Your task to perform on an android device: add a label to a message in the gmail app Image 0: 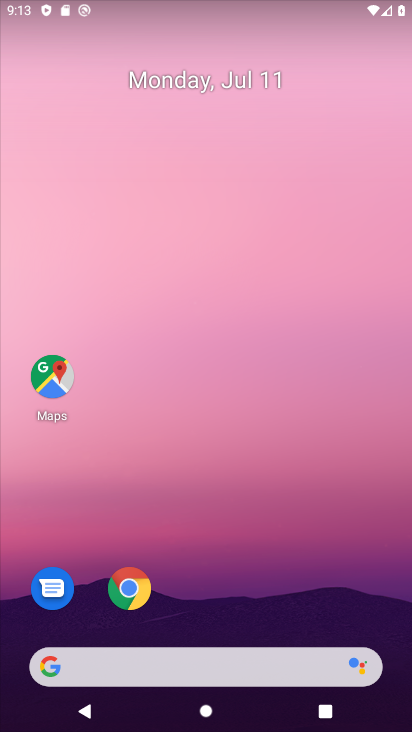
Step 0: drag from (318, 597) to (316, 428)
Your task to perform on an android device: add a label to a message in the gmail app Image 1: 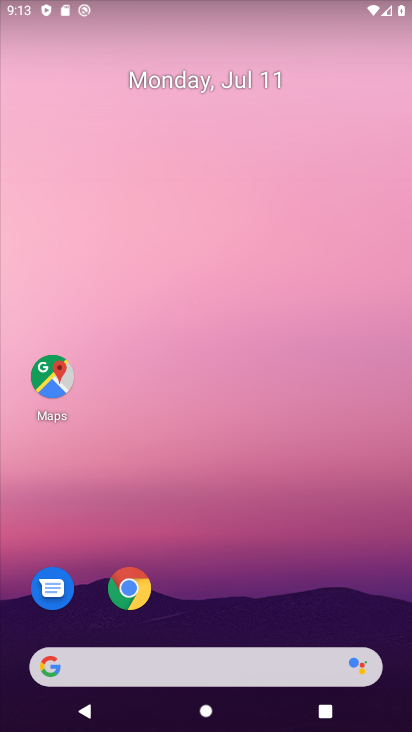
Step 1: click (325, 183)
Your task to perform on an android device: add a label to a message in the gmail app Image 2: 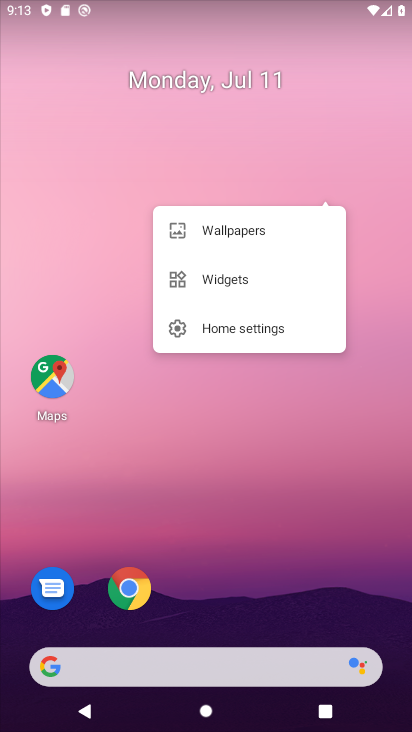
Step 2: click (301, 543)
Your task to perform on an android device: add a label to a message in the gmail app Image 3: 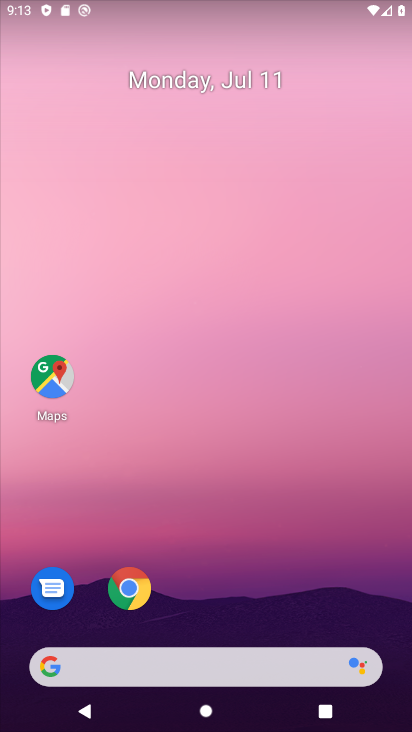
Step 3: click (301, 543)
Your task to perform on an android device: add a label to a message in the gmail app Image 4: 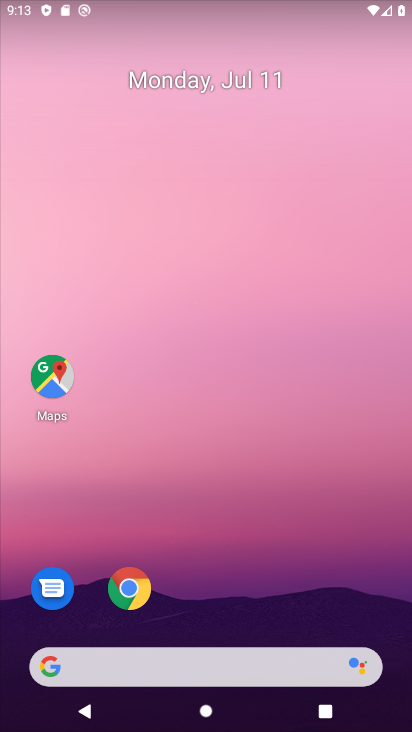
Step 4: drag from (301, 543) to (270, 107)
Your task to perform on an android device: add a label to a message in the gmail app Image 5: 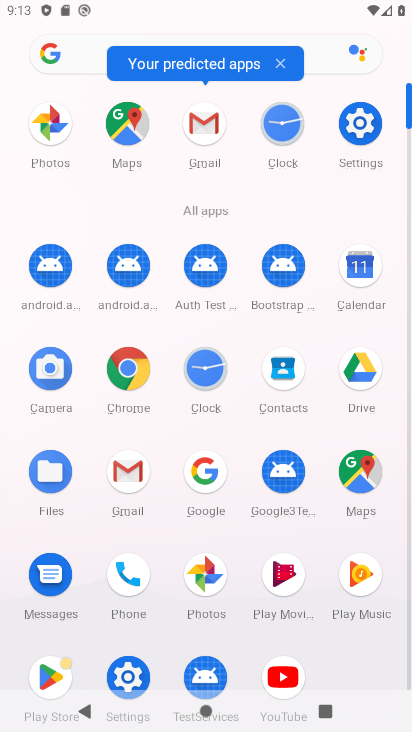
Step 5: click (200, 133)
Your task to perform on an android device: add a label to a message in the gmail app Image 6: 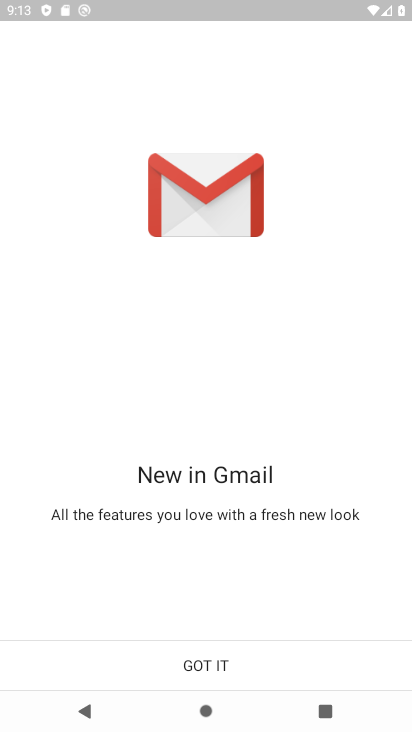
Step 6: click (243, 647)
Your task to perform on an android device: add a label to a message in the gmail app Image 7: 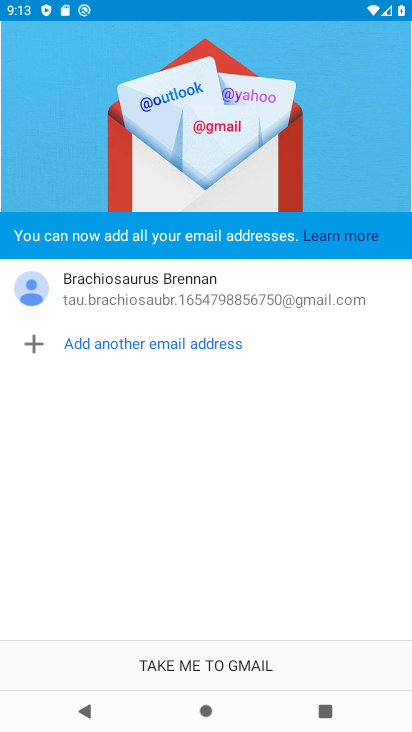
Step 7: click (333, 671)
Your task to perform on an android device: add a label to a message in the gmail app Image 8: 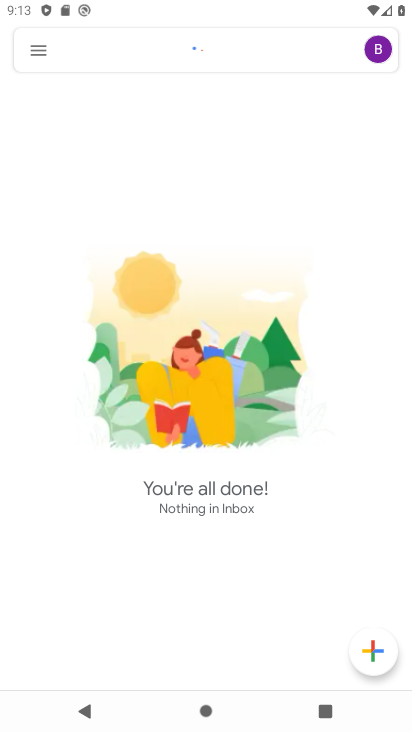
Step 8: click (31, 51)
Your task to perform on an android device: add a label to a message in the gmail app Image 9: 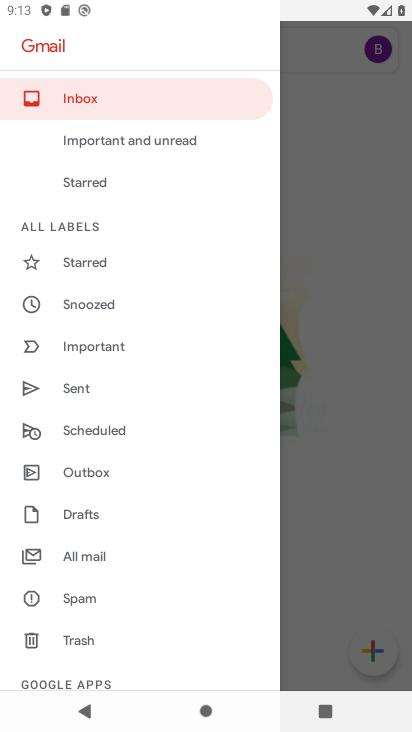
Step 9: click (89, 552)
Your task to perform on an android device: add a label to a message in the gmail app Image 10: 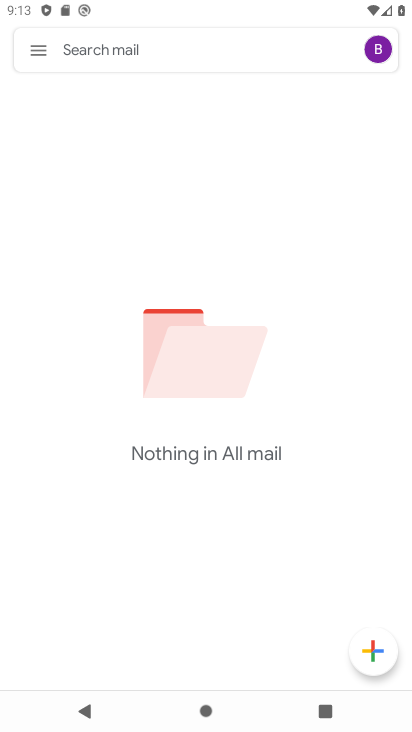
Step 10: task complete